Your task to perform on an android device: Go to battery settings Image 0: 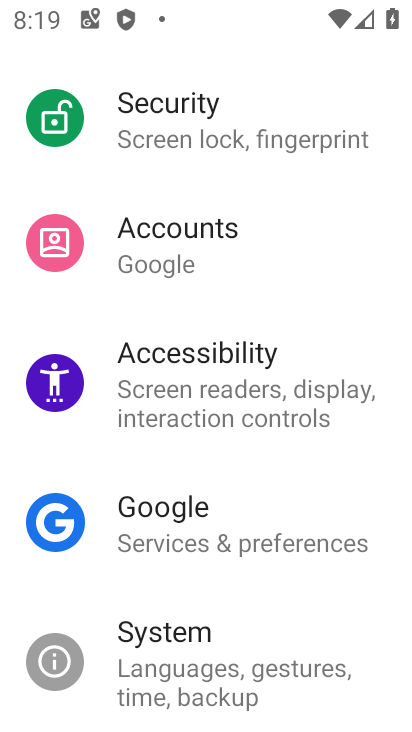
Step 0: drag from (318, 155) to (264, 628)
Your task to perform on an android device: Go to battery settings Image 1: 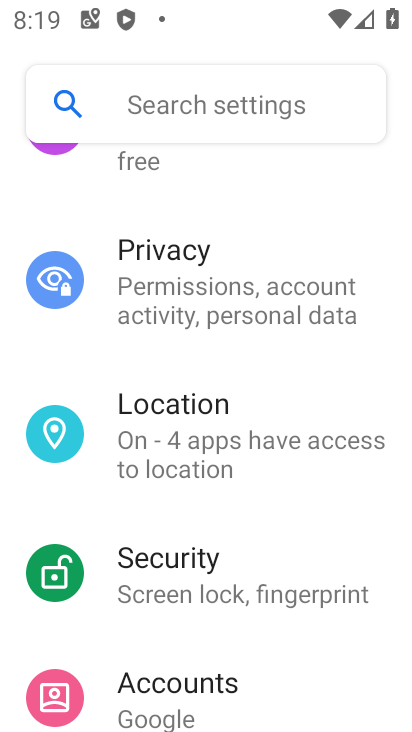
Step 1: drag from (277, 234) to (278, 653)
Your task to perform on an android device: Go to battery settings Image 2: 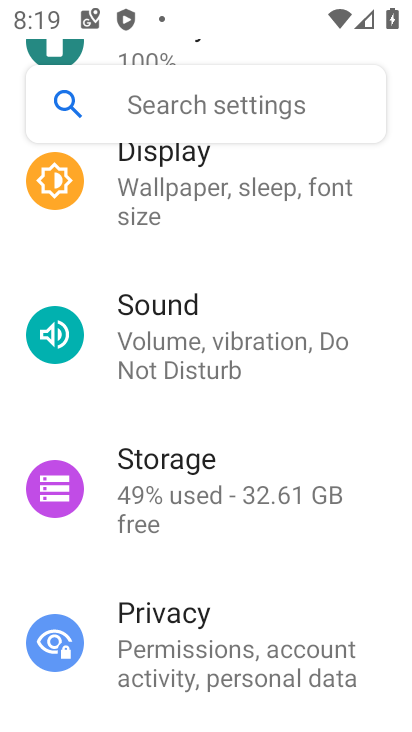
Step 2: drag from (268, 397) to (236, 686)
Your task to perform on an android device: Go to battery settings Image 3: 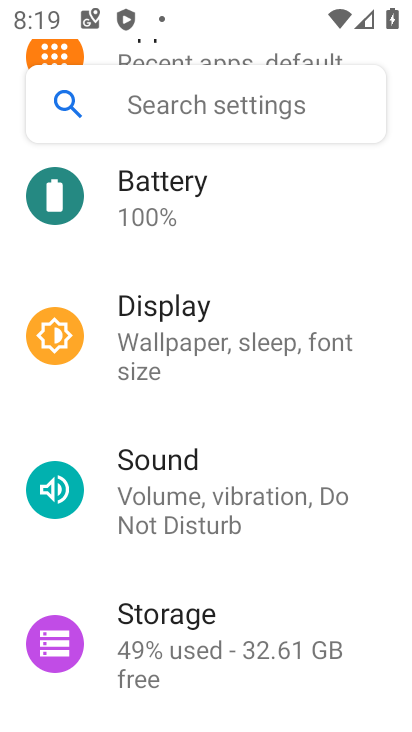
Step 3: drag from (301, 221) to (264, 614)
Your task to perform on an android device: Go to battery settings Image 4: 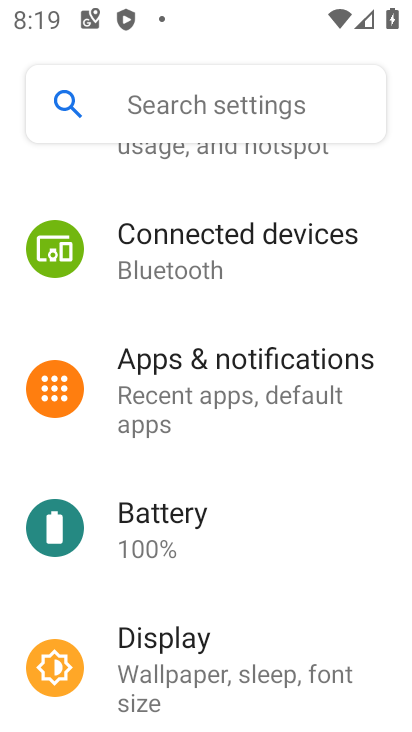
Step 4: click (210, 520)
Your task to perform on an android device: Go to battery settings Image 5: 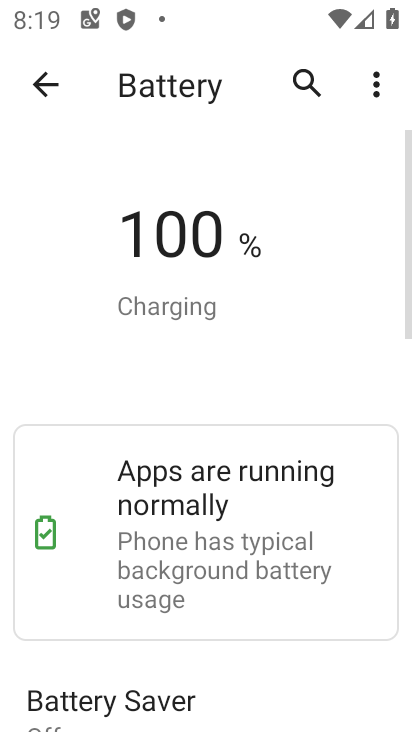
Step 5: task complete